Your task to perform on an android device: What's on my calendar tomorrow? Image 0: 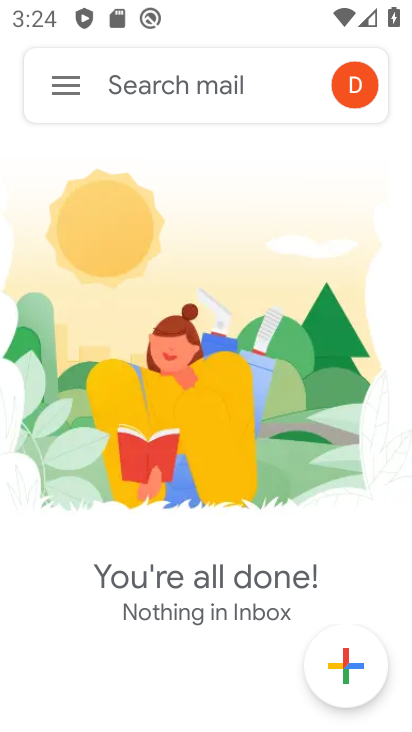
Step 0: press back button
Your task to perform on an android device: What's on my calendar tomorrow? Image 1: 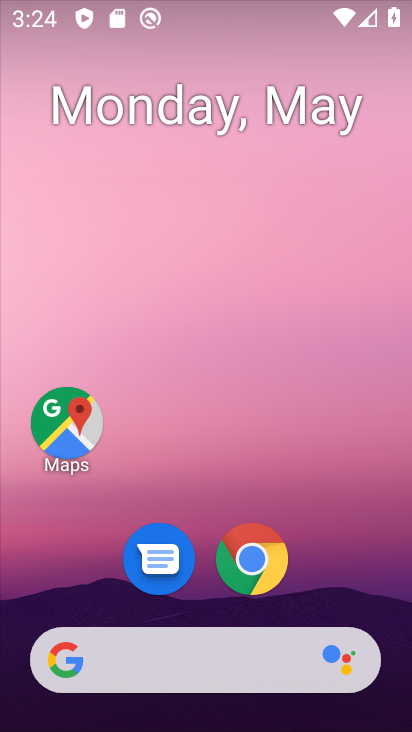
Step 1: drag from (257, 617) to (169, 307)
Your task to perform on an android device: What's on my calendar tomorrow? Image 2: 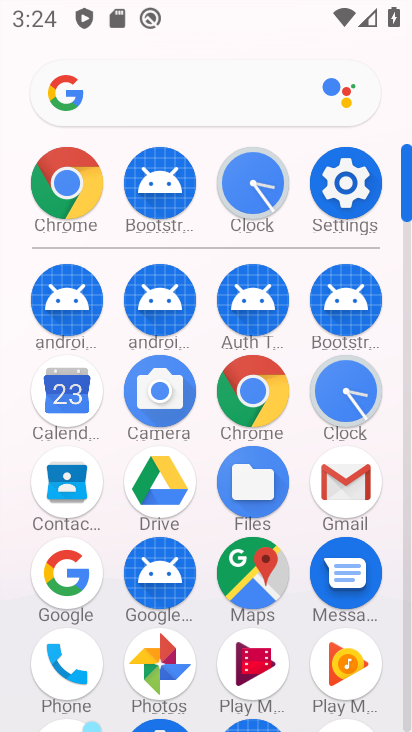
Step 2: click (84, 408)
Your task to perform on an android device: What's on my calendar tomorrow? Image 3: 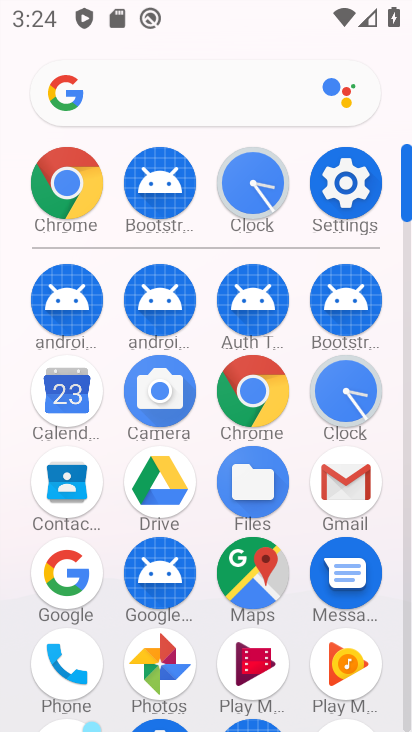
Step 3: click (69, 408)
Your task to perform on an android device: What's on my calendar tomorrow? Image 4: 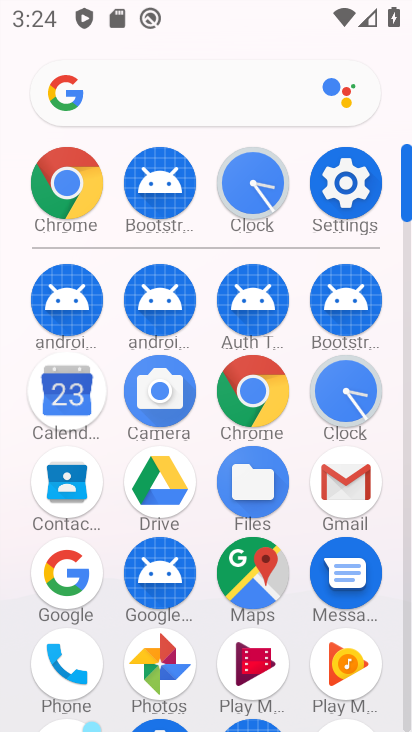
Step 4: click (69, 408)
Your task to perform on an android device: What's on my calendar tomorrow? Image 5: 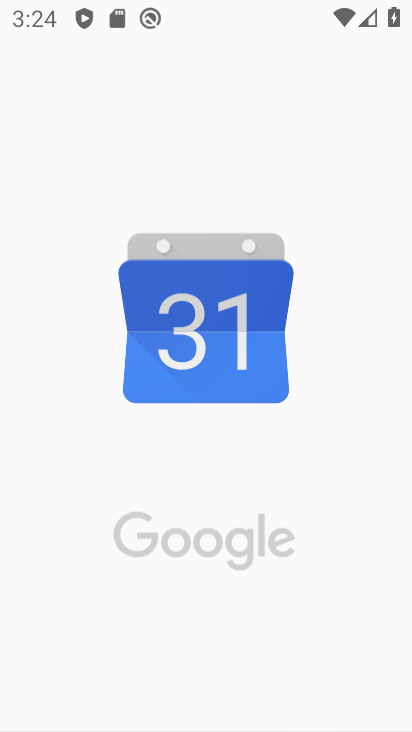
Step 5: click (70, 408)
Your task to perform on an android device: What's on my calendar tomorrow? Image 6: 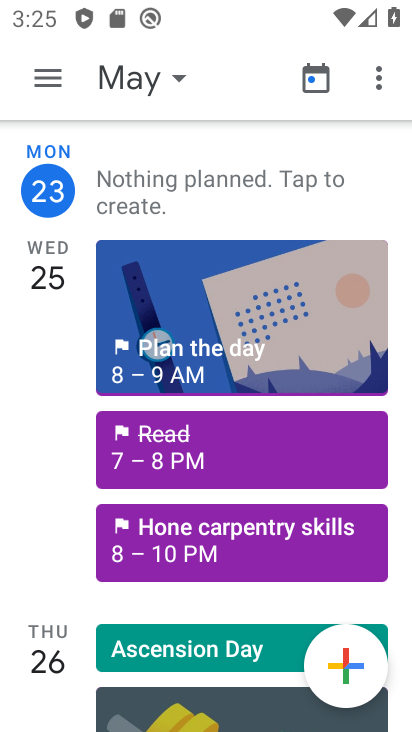
Step 6: press back button
Your task to perform on an android device: What's on my calendar tomorrow? Image 7: 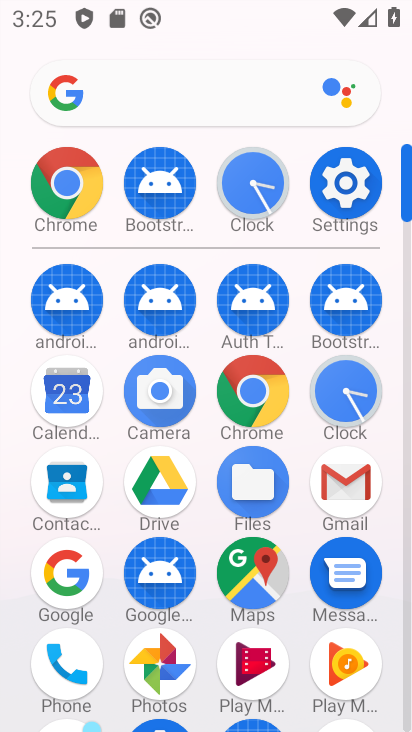
Step 7: click (57, 398)
Your task to perform on an android device: What's on my calendar tomorrow? Image 8: 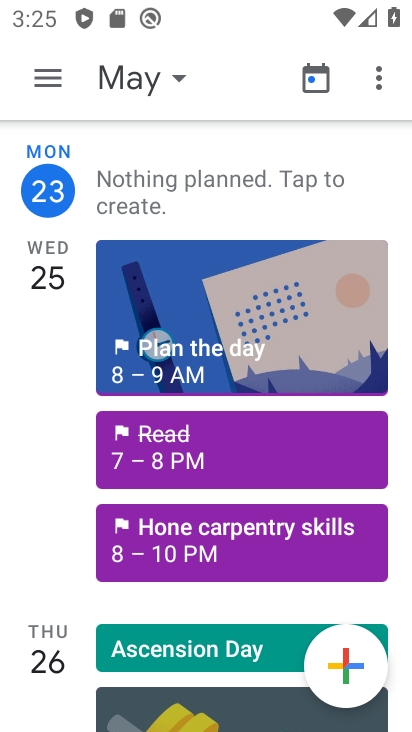
Step 8: click (171, 77)
Your task to perform on an android device: What's on my calendar tomorrow? Image 9: 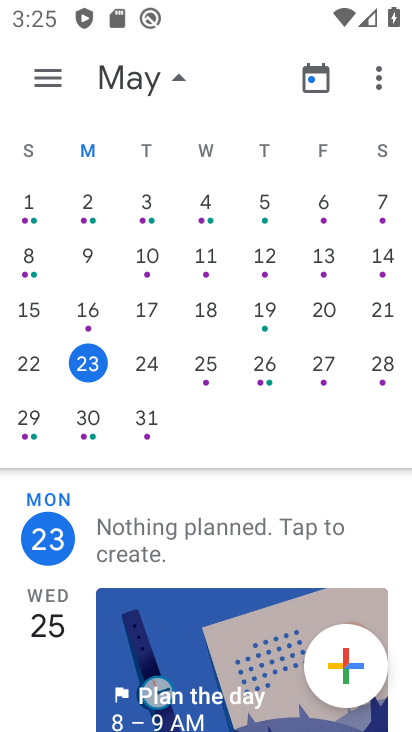
Step 9: drag from (229, 337) to (19, 335)
Your task to perform on an android device: What's on my calendar tomorrow? Image 10: 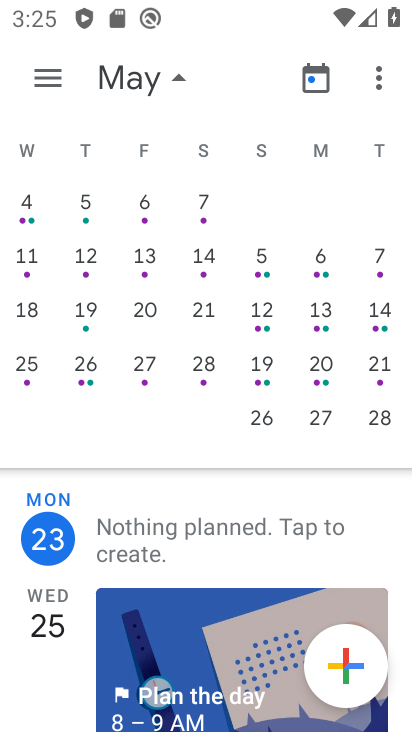
Step 10: drag from (324, 349) to (61, 365)
Your task to perform on an android device: What's on my calendar tomorrow? Image 11: 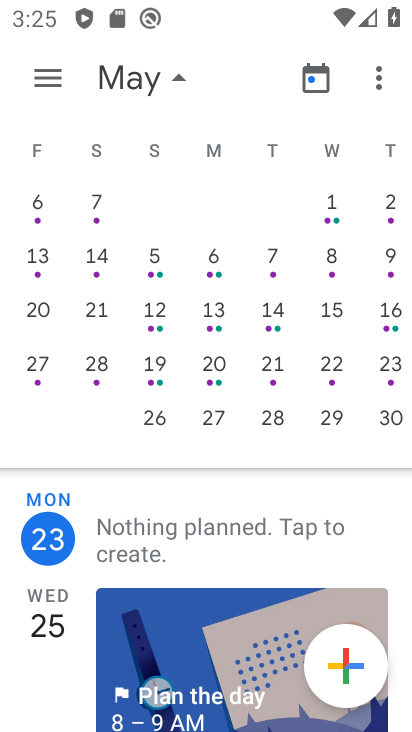
Step 11: drag from (230, 348) to (29, 351)
Your task to perform on an android device: What's on my calendar tomorrow? Image 12: 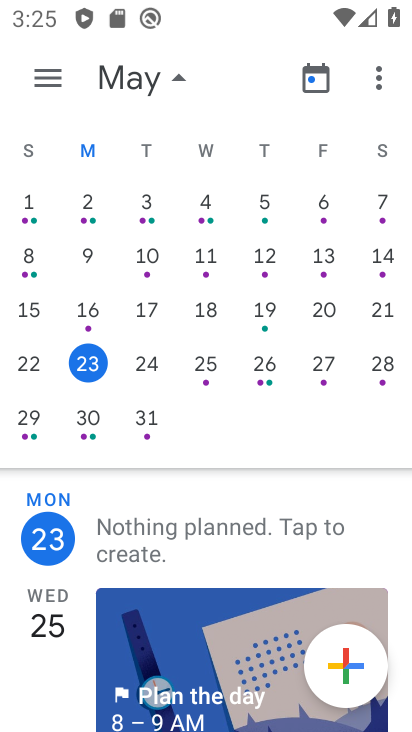
Step 12: drag from (3, 338) to (47, 442)
Your task to perform on an android device: What's on my calendar tomorrow? Image 13: 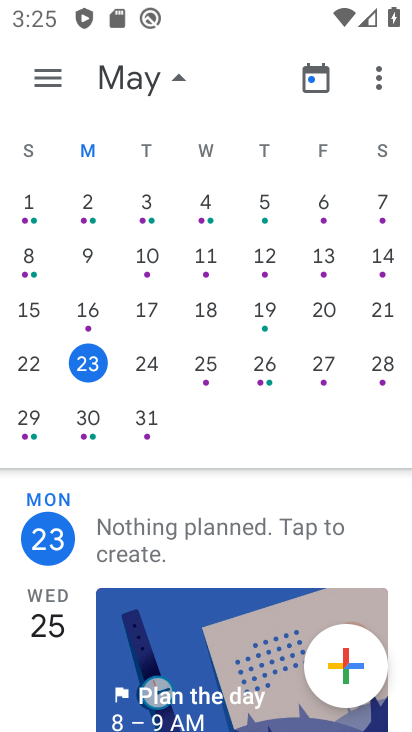
Step 13: click (91, 365)
Your task to perform on an android device: What's on my calendar tomorrow? Image 14: 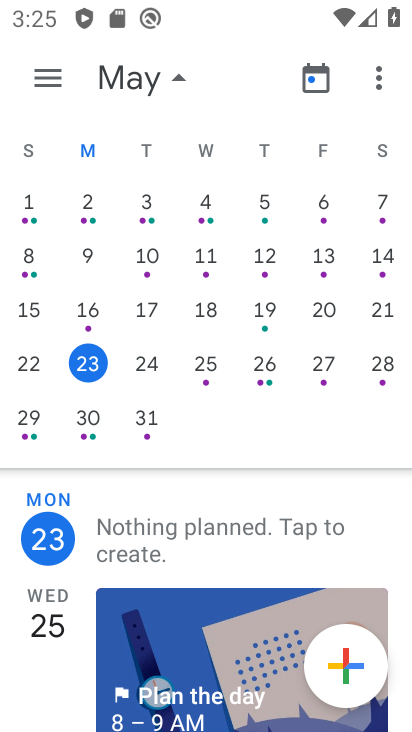
Step 14: task complete